Your task to perform on an android device: toggle wifi Image 0: 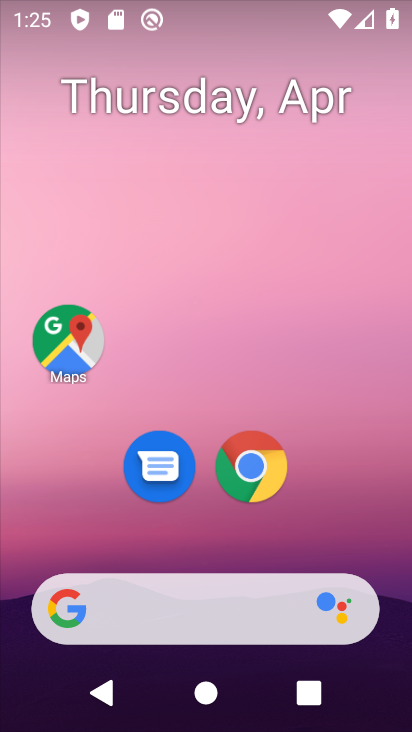
Step 0: drag from (354, 492) to (199, 0)
Your task to perform on an android device: toggle wifi Image 1: 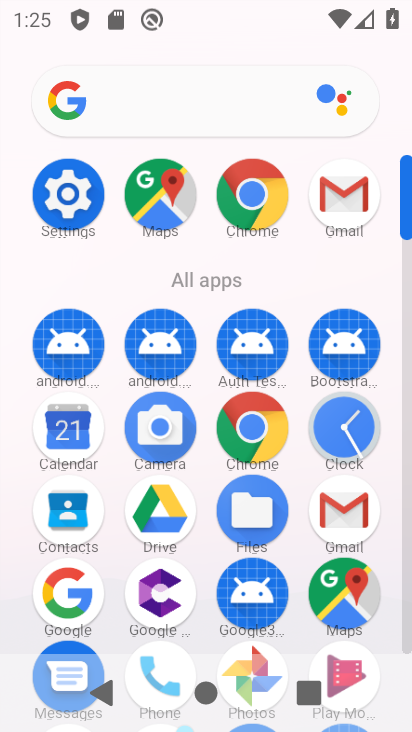
Step 1: drag from (8, 580) to (21, 251)
Your task to perform on an android device: toggle wifi Image 2: 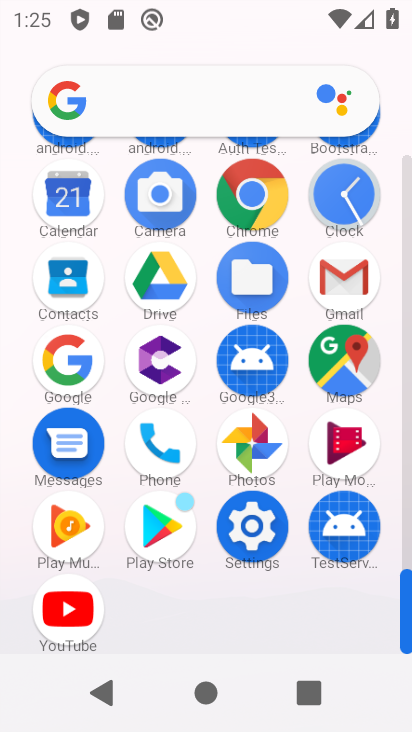
Step 2: drag from (4, 520) to (3, 329)
Your task to perform on an android device: toggle wifi Image 3: 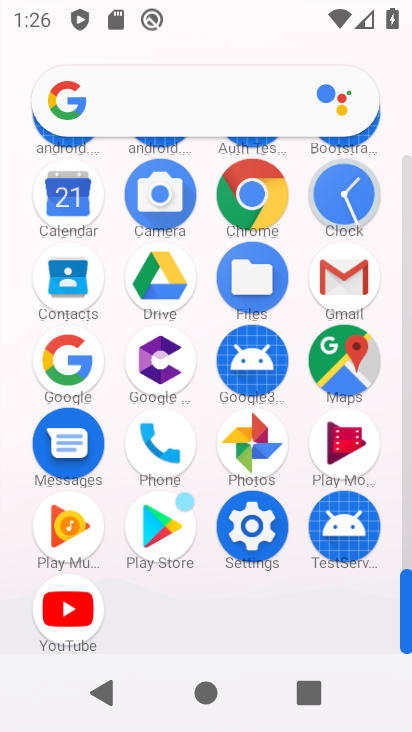
Step 3: click (252, 524)
Your task to perform on an android device: toggle wifi Image 4: 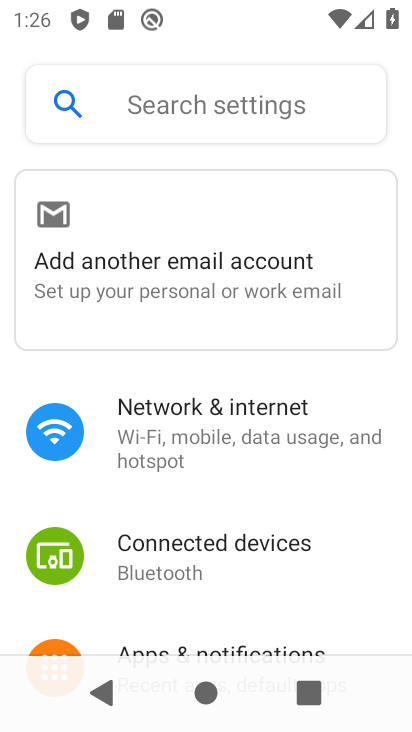
Step 4: drag from (318, 521) to (301, 175)
Your task to perform on an android device: toggle wifi Image 5: 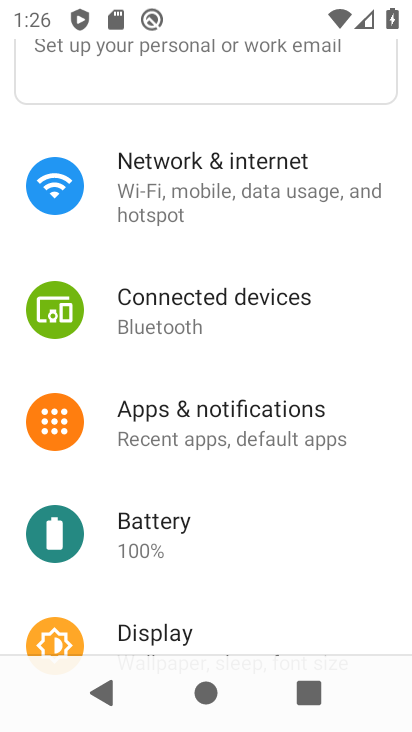
Step 5: click (291, 184)
Your task to perform on an android device: toggle wifi Image 6: 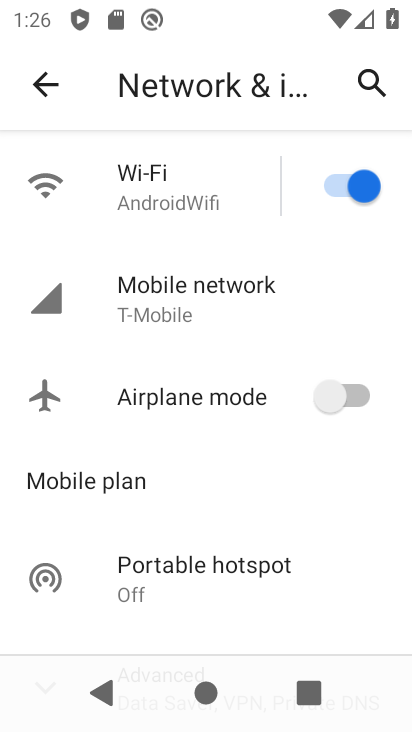
Step 6: task complete